Your task to perform on an android device: change the upload size in google photos Image 0: 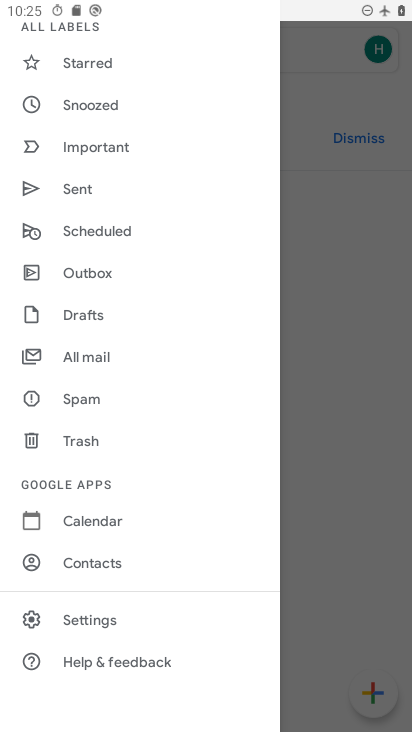
Step 0: press home button
Your task to perform on an android device: change the upload size in google photos Image 1: 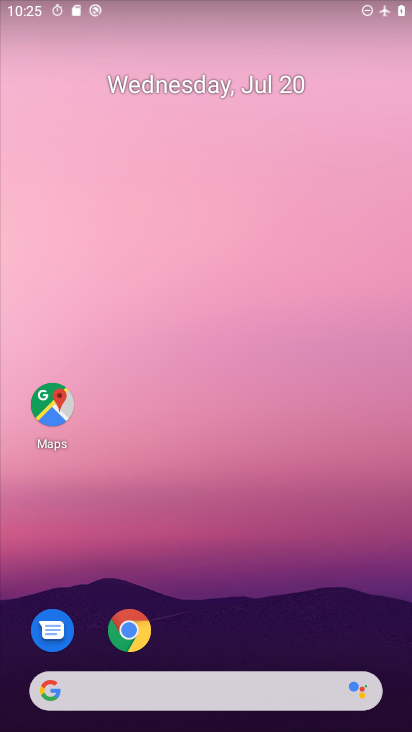
Step 1: drag from (211, 601) to (335, 33)
Your task to perform on an android device: change the upload size in google photos Image 2: 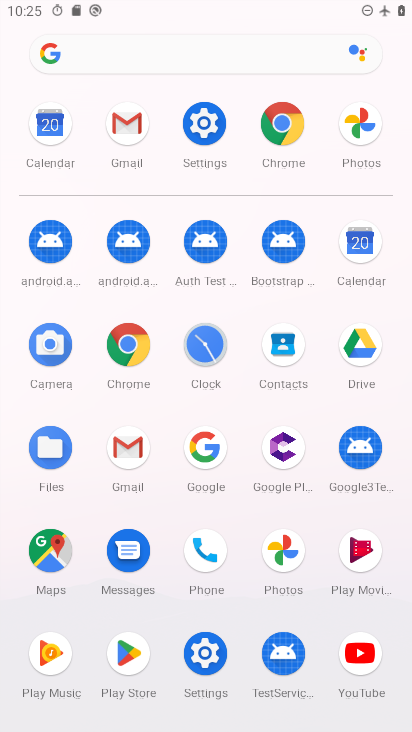
Step 2: click (276, 561)
Your task to perform on an android device: change the upload size in google photos Image 3: 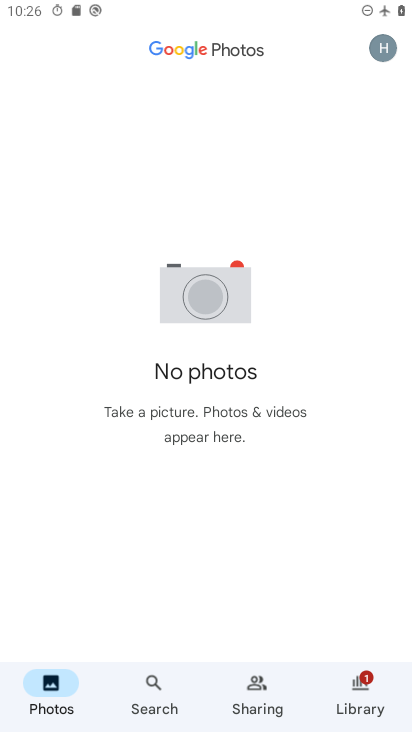
Step 3: click (382, 47)
Your task to perform on an android device: change the upload size in google photos Image 4: 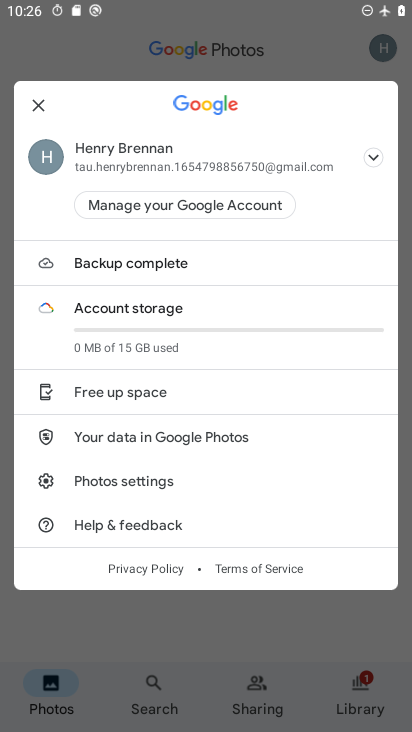
Step 4: click (110, 481)
Your task to perform on an android device: change the upload size in google photos Image 5: 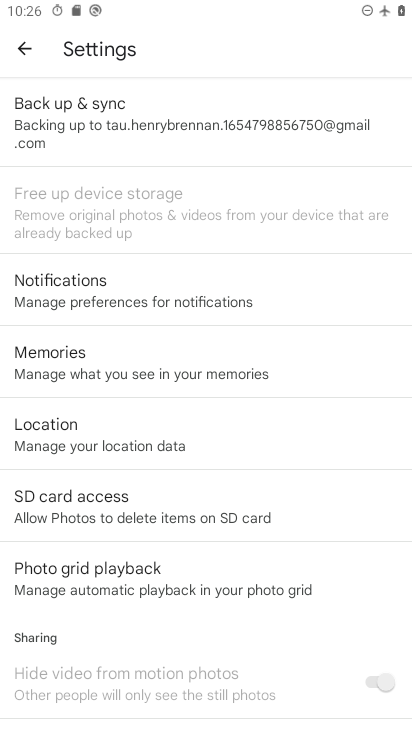
Step 5: click (151, 125)
Your task to perform on an android device: change the upload size in google photos Image 6: 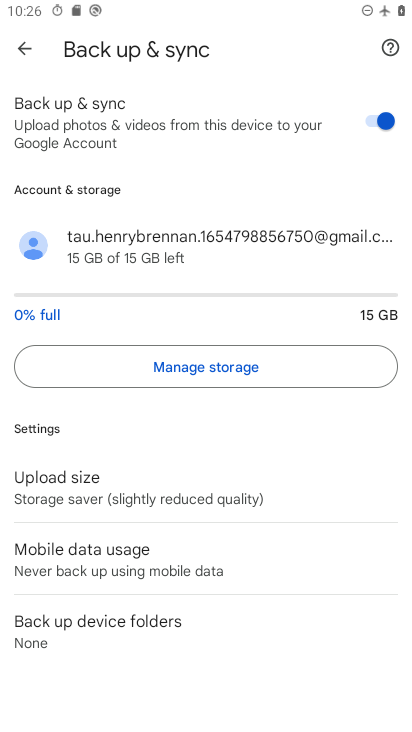
Step 6: click (98, 498)
Your task to perform on an android device: change the upload size in google photos Image 7: 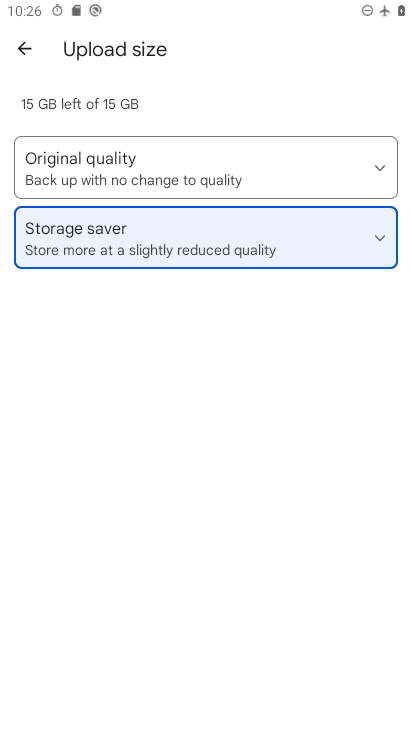
Step 7: click (107, 162)
Your task to perform on an android device: change the upload size in google photos Image 8: 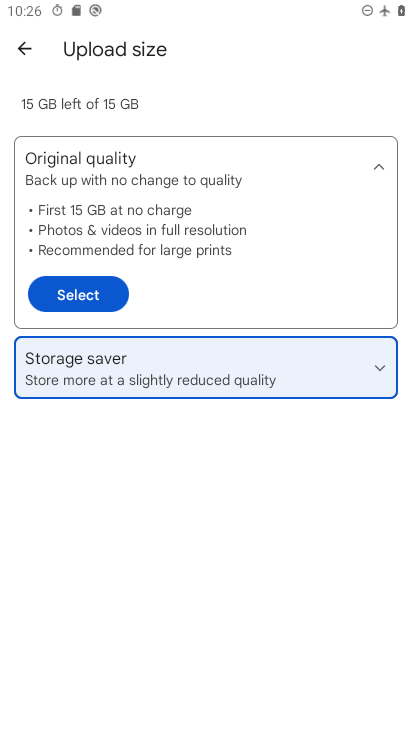
Step 8: click (56, 306)
Your task to perform on an android device: change the upload size in google photos Image 9: 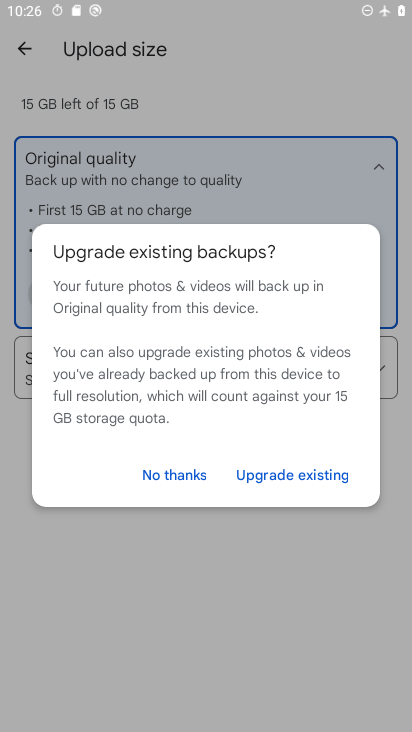
Step 9: click (178, 473)
Your task to perform on an android device: change the upload size in google photos Image 10: 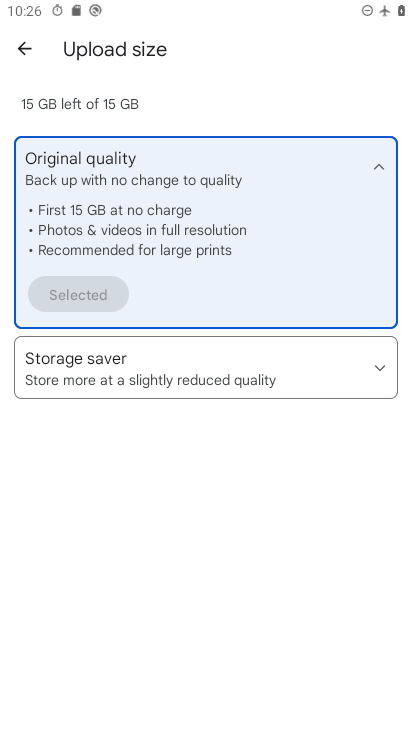
Step 10: task complete